Your task to perform on an android device: See recent photos Image 0: 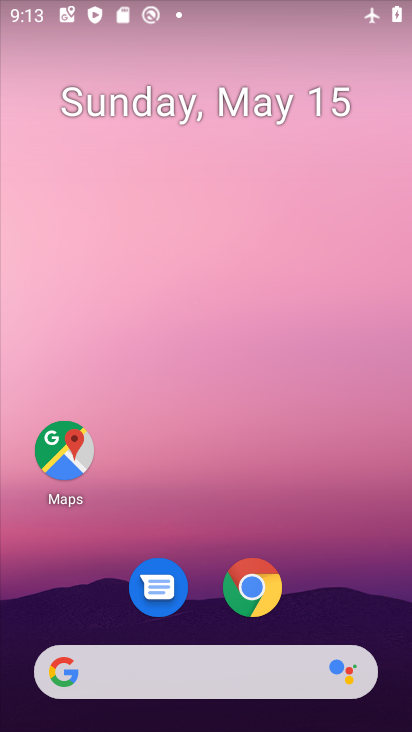
Step 0: drag from (385, 654) to (279, 92)
Your task to perform on an android device: See recent photos Image 1: 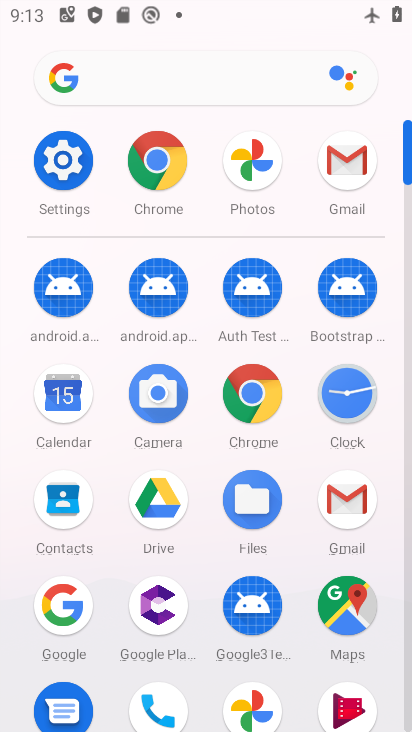
Step 1: click (247, 695)
Your task to perform on an android device: See recent photos Image 2: 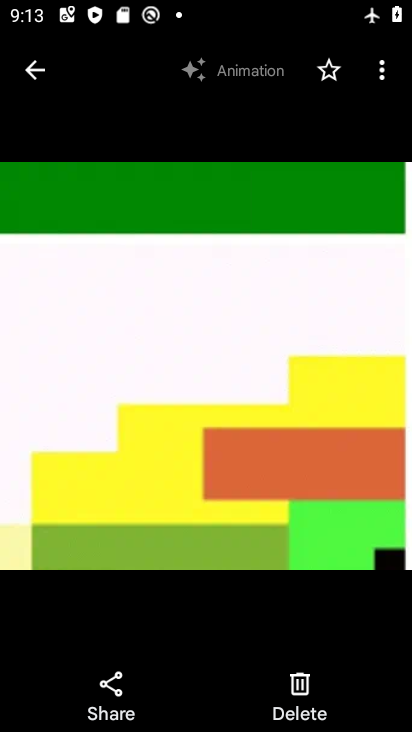
Step 2: click (31, 60)
Your task to perform on an android device: See recent photos Image 3: 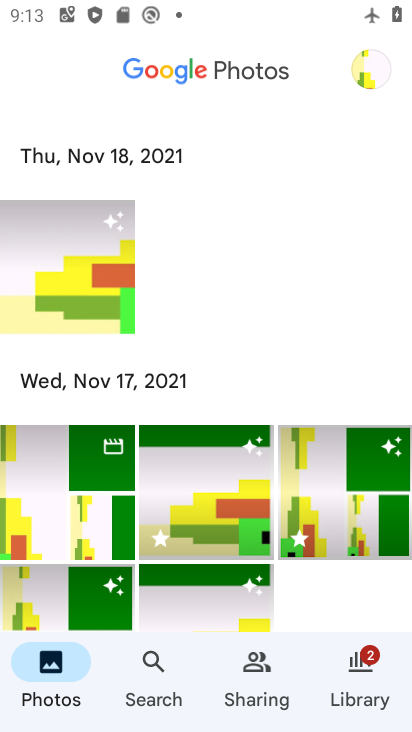
Step 3: click (67, 277)
Your task to perform on an android device: See recent photos Image 4: 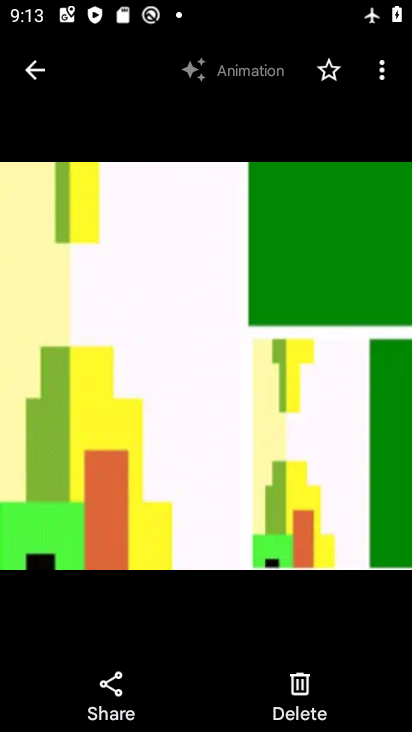
Step 4: task complete